Your task to perform on an android device: set the timer Image 0: 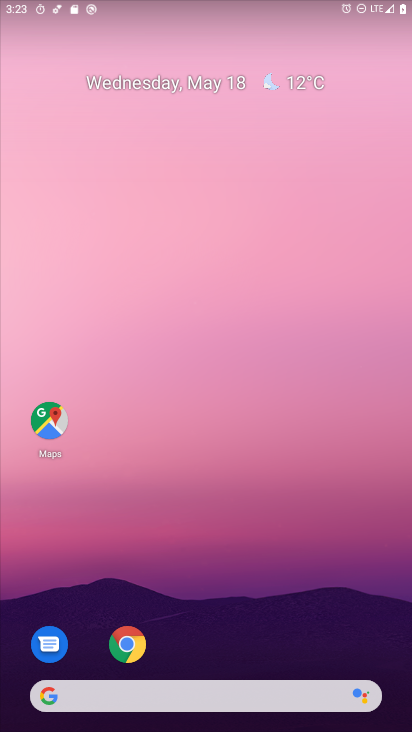
Step 0: drag from (380, 676) to (283, 112)
Your task to perform on an android device: set the timer Image 1: 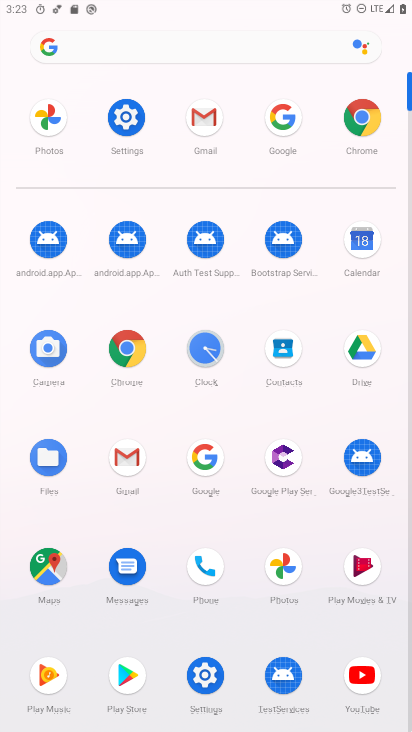
Step 1: click (202, 348)
Your task to perform on an android device: set the timer Image 2: 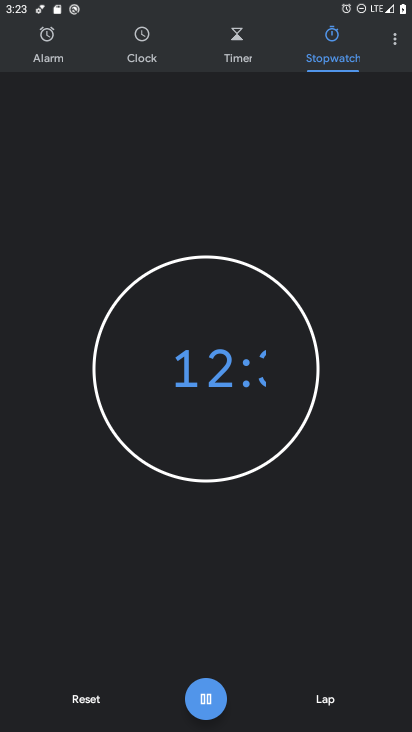
Step 2: click (393, 34)
Your task to perform on an android device: set the timer Image 3: 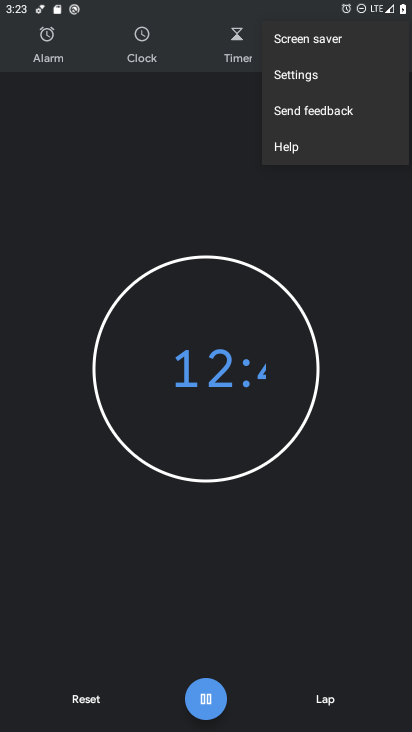
Step 3: click (306, 71)
Your task to perform on an android device: set the timer Image 4: 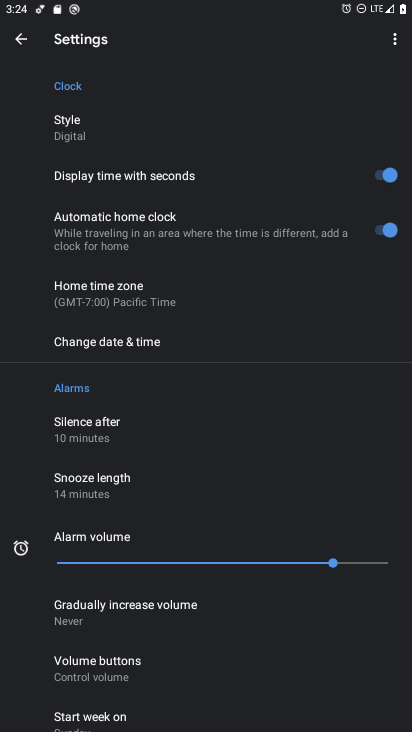
Step 4: press back button
Your task to perform on an android device: set the timer Image 5: 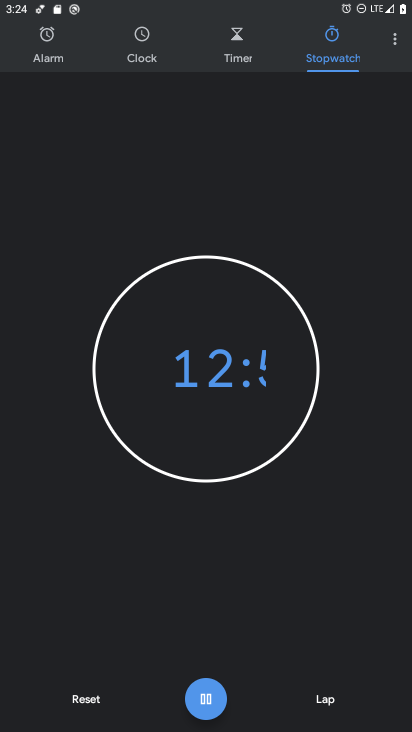
Step 5: click (90, 698)
Your task to perform on an android device: set the timer Image 6: 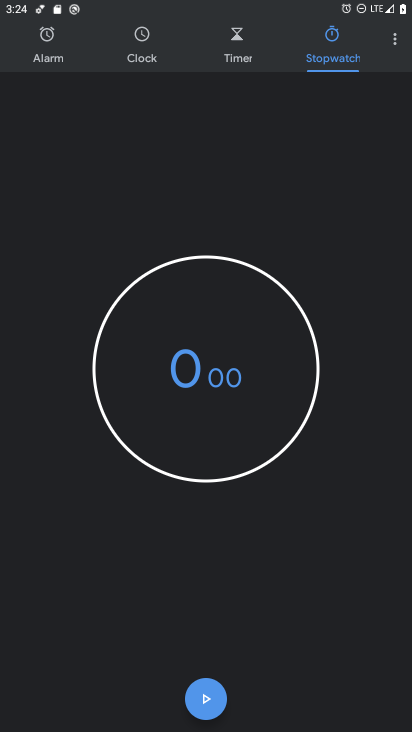
Step 6: click (220, 692)
Your task to perform on an android device: set the timer Image 7: 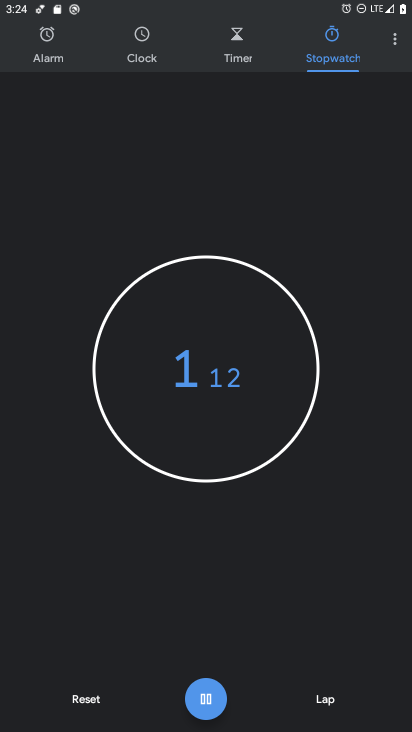
Step 7: task complete